Your task to perform on an android device: Go to battery settings Image 0: 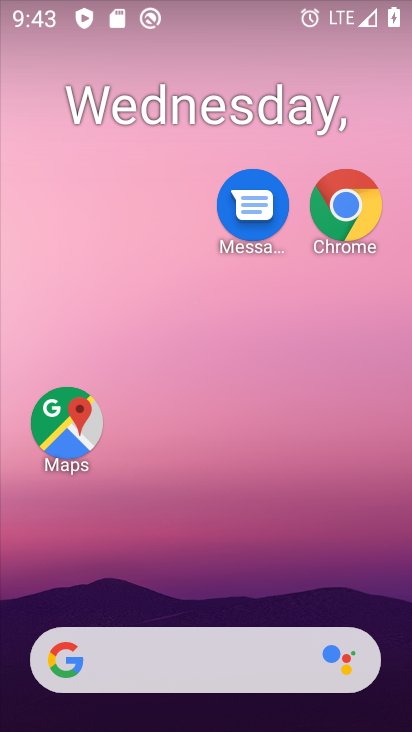
Step 0: drag from (250, 412) to (241, 30)
Your task to perform on an android device: Go to battery settings Image 1: 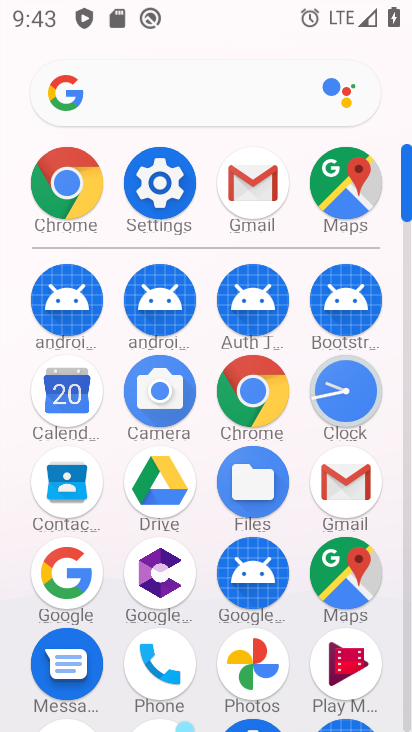
Step 1: click (151, 182)
Your task to perform on an android device: Go to battery settings Image 2: 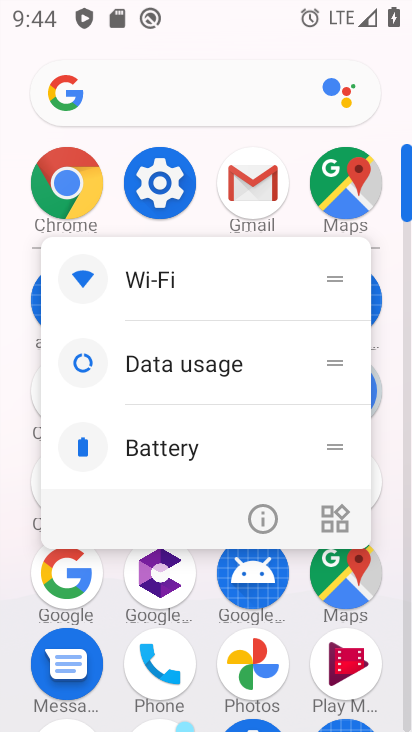
Step 2: click (259, 513)
Your task to perform on an android device: Go to battery settings Image 3: 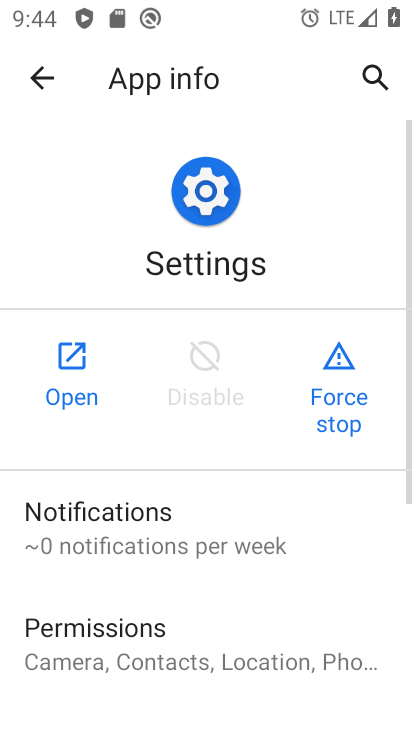
Step 3: click (79, 382)
Your task to perform on an android device: Go to battery settings Image 4: 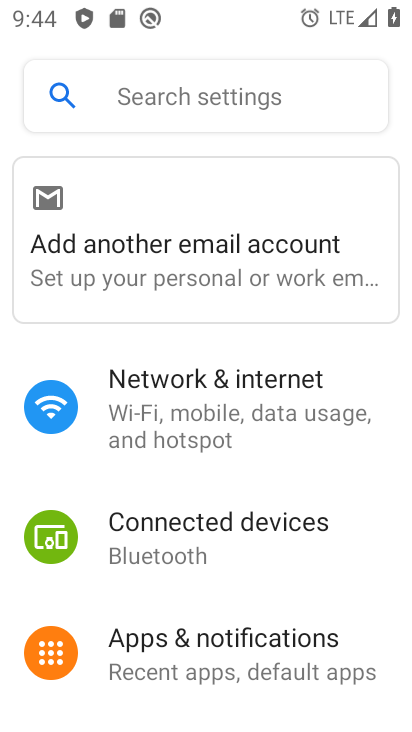
Step 4: click (186, 95)
Your task to perform on an android device: Go to battery settings Image 5: 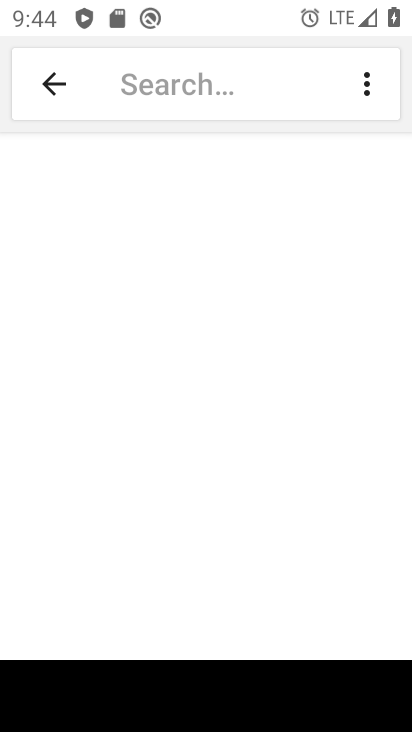
Step 5: click (64, 80)
Your task to perform on an android device: Go to battery settings Image 6: 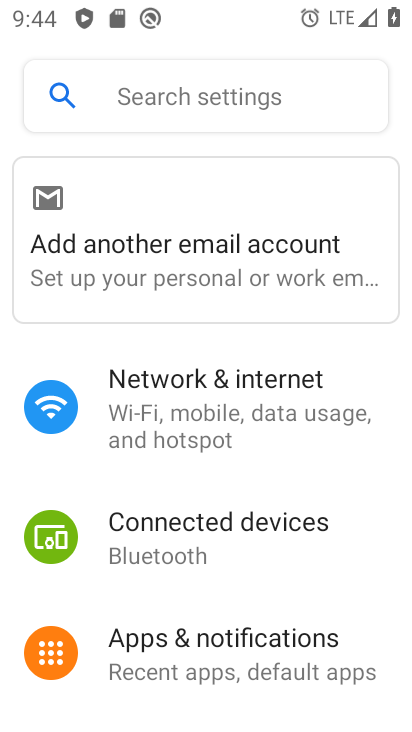
Step 6: drag from (208, 576) to (283, 5)
Your task to perform on an android device: Go to battery settings Image 7: 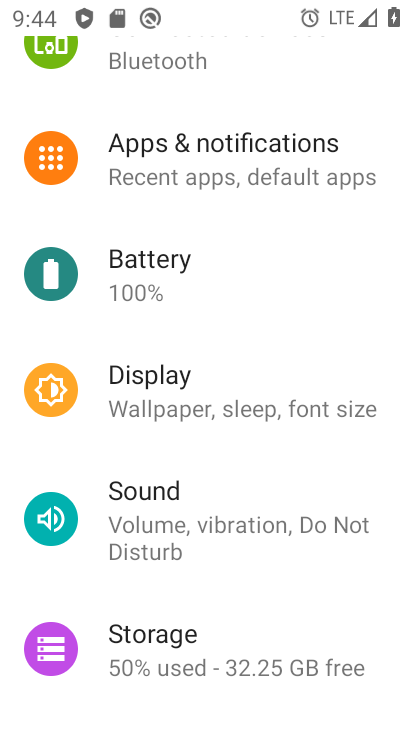
Step 7: click (214, 264)
Your task to perform on an android device: Go to battery settings Image 8: 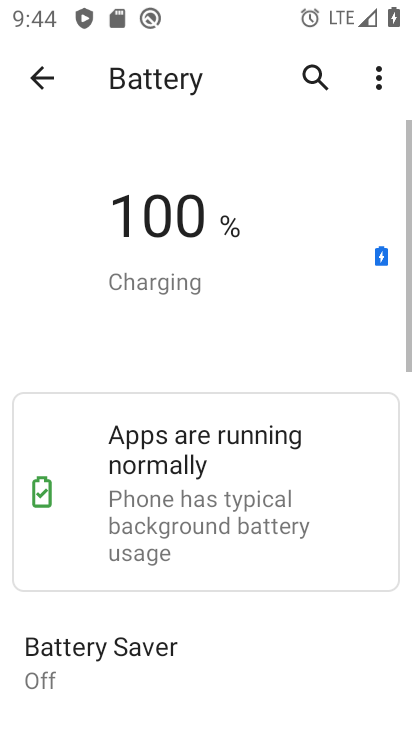
Step 8: task complete